Your task to perform on an android device: uninstall "HBO Max: Stream TV & Movies" Image 0: 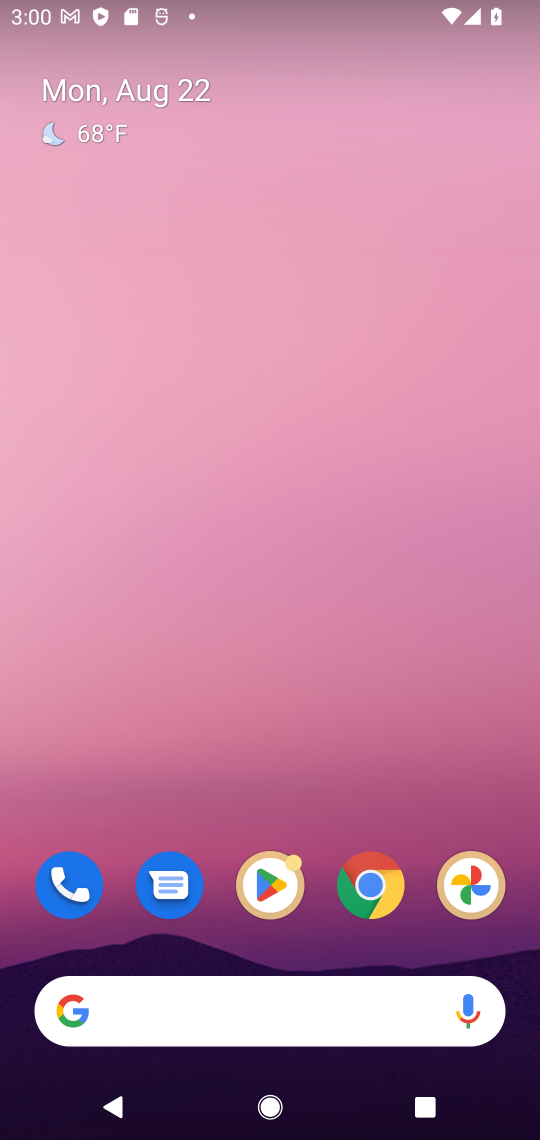
Step 0: press home button
Your task to perform on an android device: uninstall "HBO Max: Stream TV & Movies" Image 1: 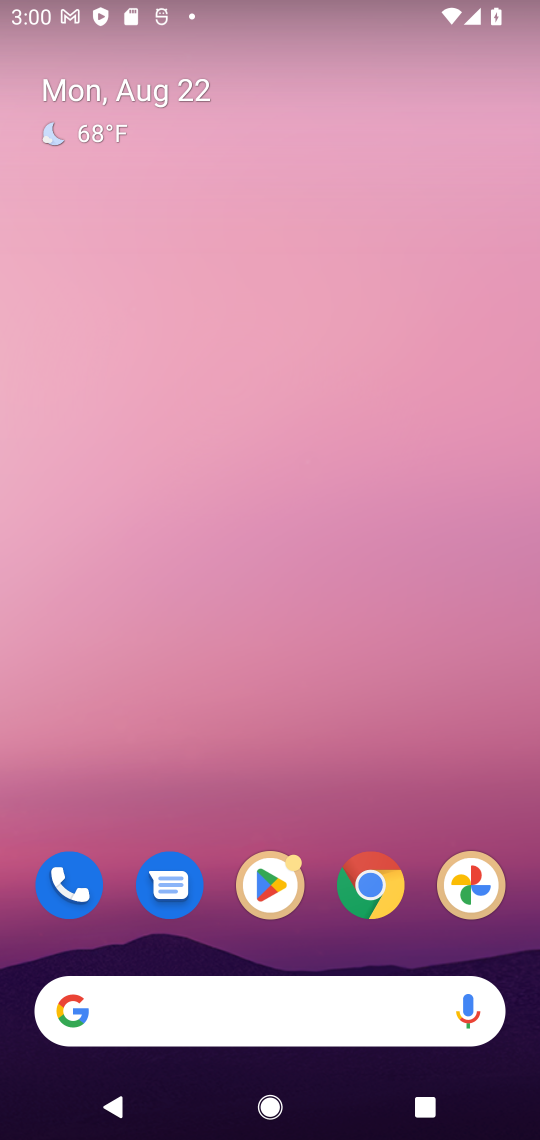
Step 1: click (262, 882)
Your task to perform on an android device: uninstall "HBO Max: Stream TV & Movies" Image 2: 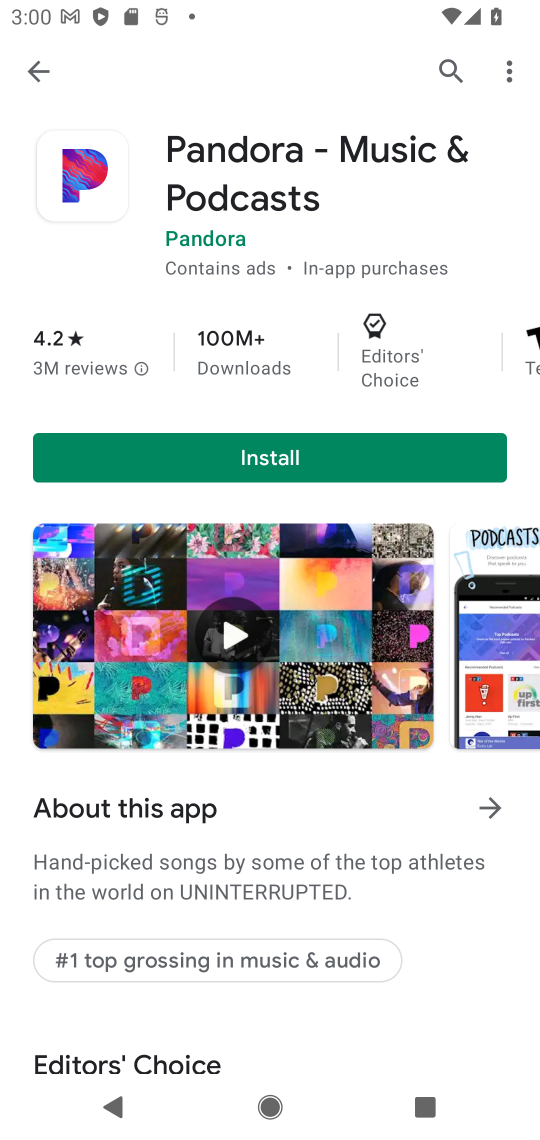
Step 2: click (34, 63)
Your task to perform on an android device: uninstall "HBO Max: Stream TV & Movies" Image 3: 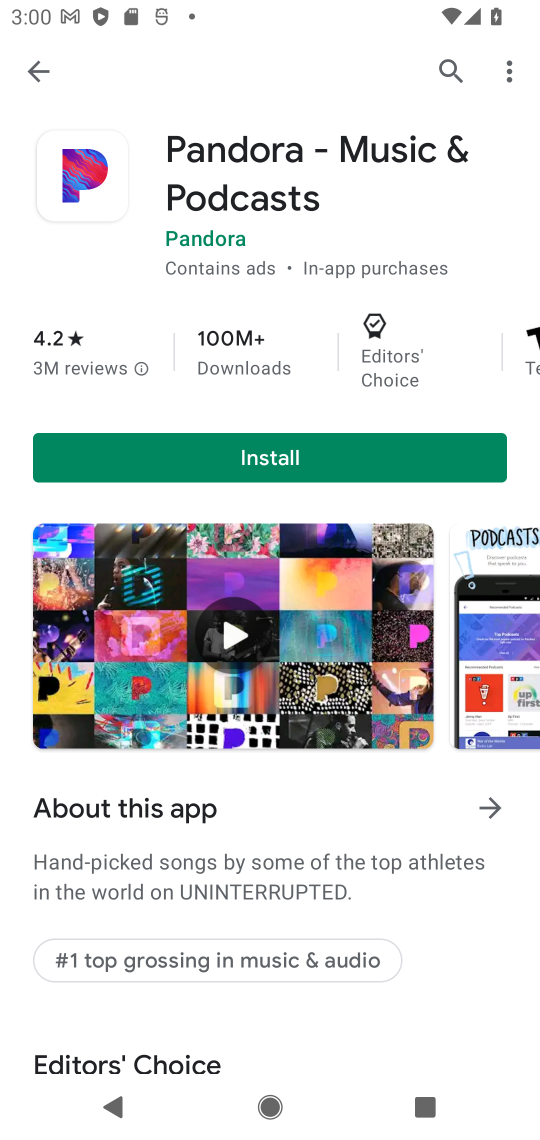
Step 3: click (442, 64)
Your task to perform on an android device: uninstall "HBO Max: Stream TV & Movies" Image 4: 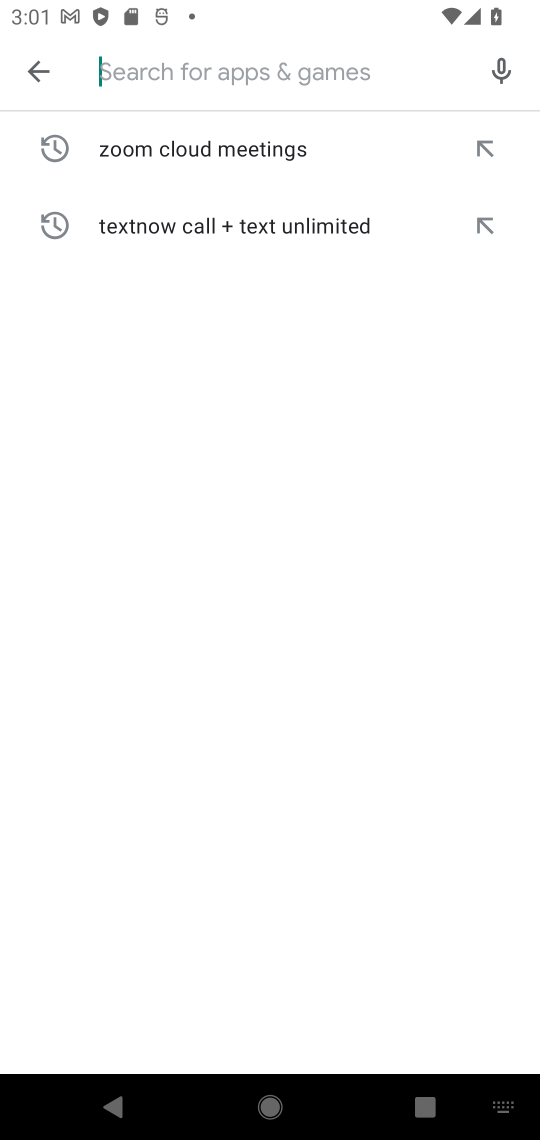
Step 4: type "HBO Max: Stream TV & Movies"
Your task to perform on an android device: uninstall "HBO Max: Stream TV & Movies" Image 5: 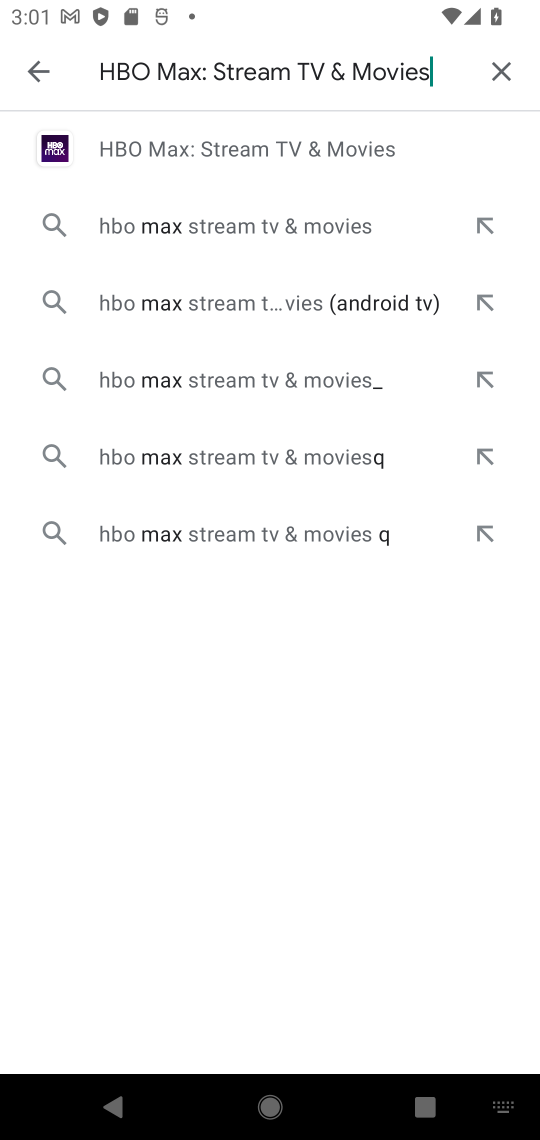
Step 5: click (161, 135)
Your task to perform on an android device: uninstall "HBO Max: Stream TV & Movies" Image 6: 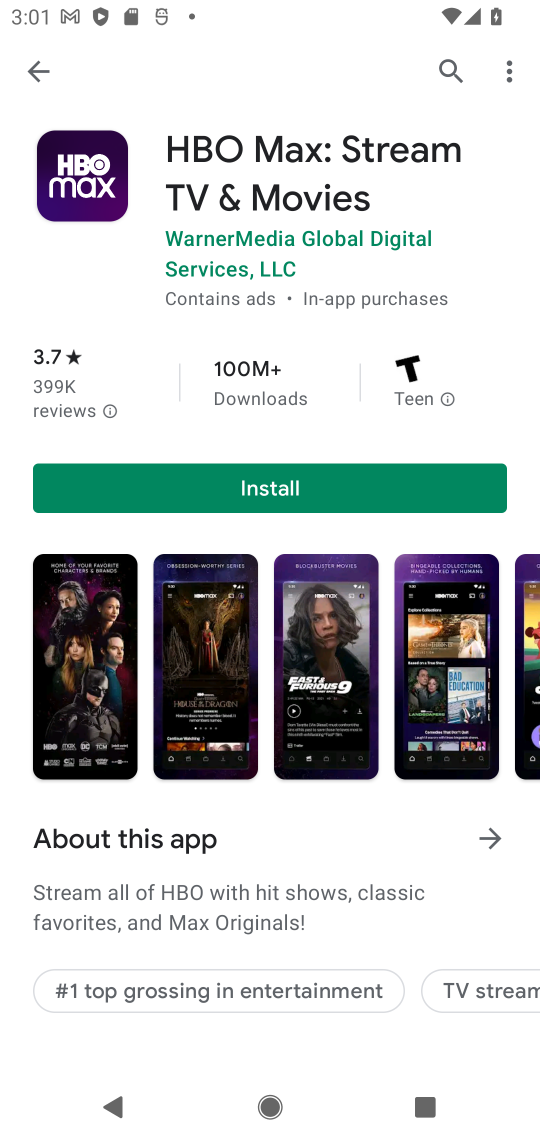
Step 6: task complete